Your task to perform on an android device: see sites visited before in the chrome app Image 0: 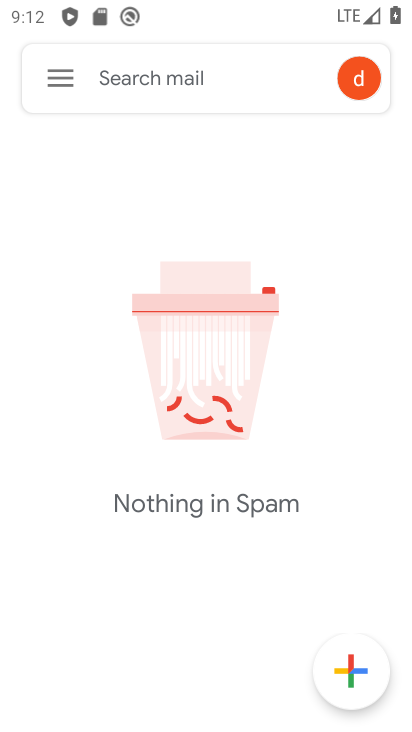
Step 0: press home button
Your task to perform on an android device: see sites visited before in the chrome app Image 1: 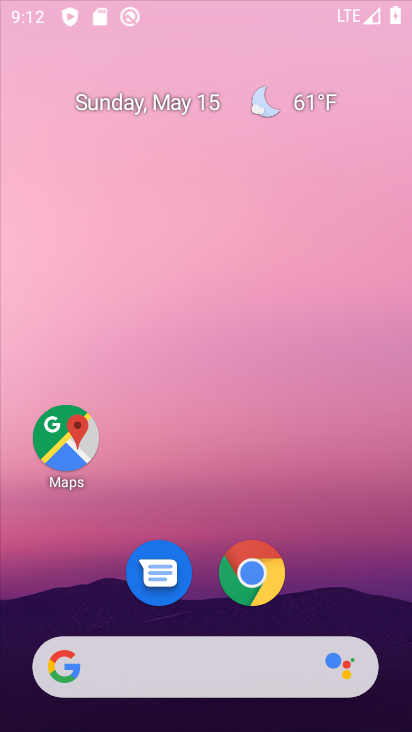
Step 1: drag from (37, 521) to (183, 151)
Your task to perform on an android device: see sites visited before in the chrome app Image 2: 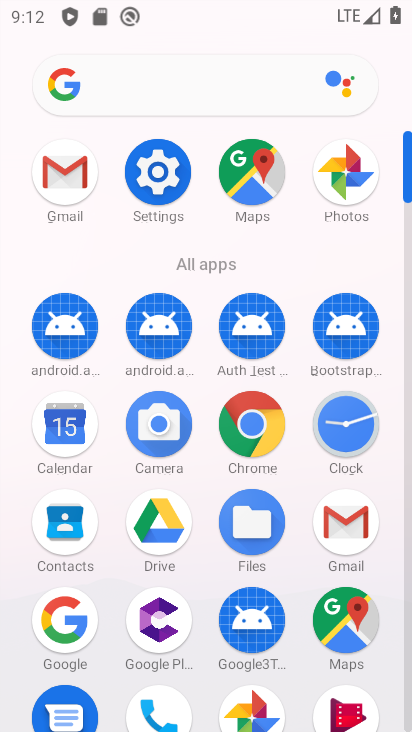
Step 2: click (251, 423)
Your task to perform on an android device: see sites visited before in the chrome app Image 3: 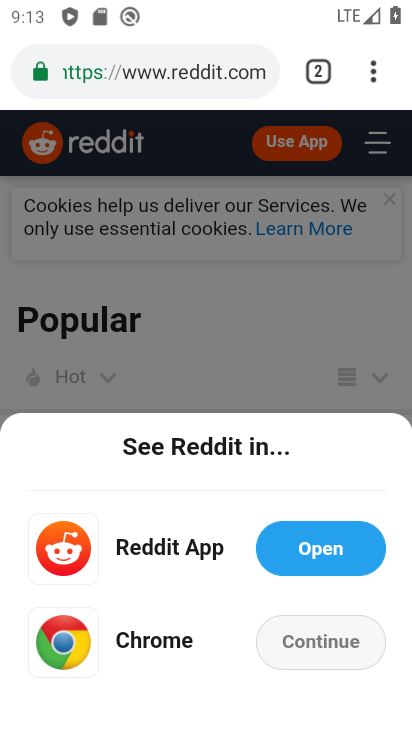
Step 3: press home button
Your task to perform on an android device: see sites visited before in the chrome app Image 4: 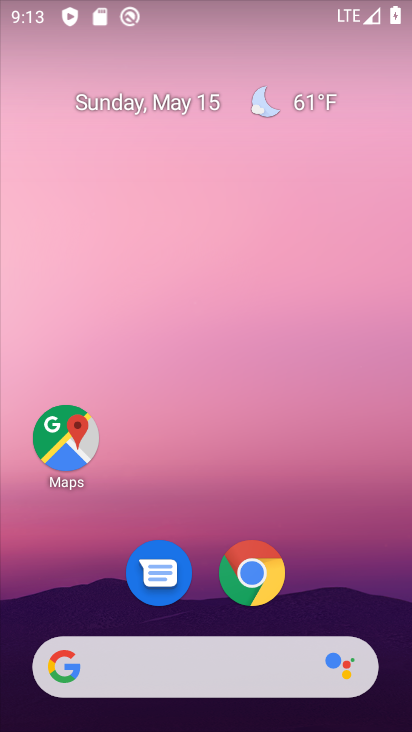
Step 4: click (260, 579)
Your task to perform on an android device: see sites visited before in the chrome app Image 5: 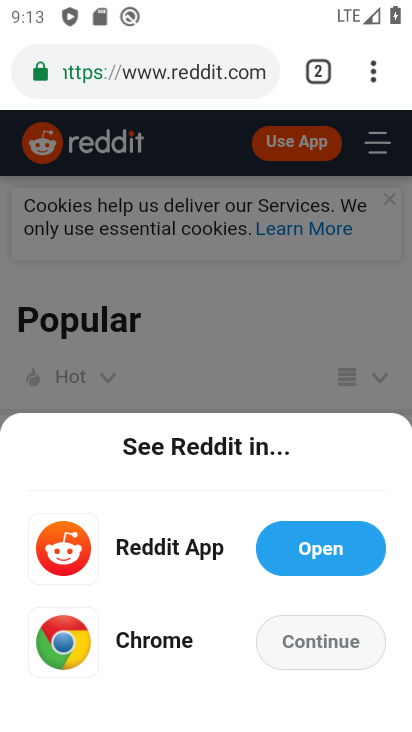
Step 5: press back button
Your task to perform on an android device: see sites visited before in the chrome app Image 6: 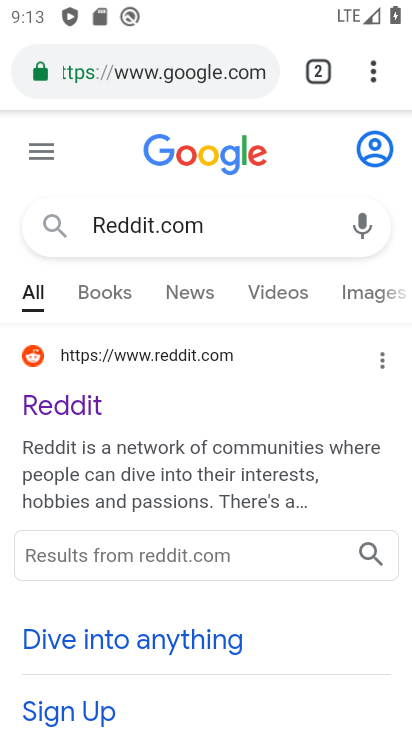
Step 6: click (334, 63)
Your task to perform on an android device: see sites visited before in the chrome app Image 7: 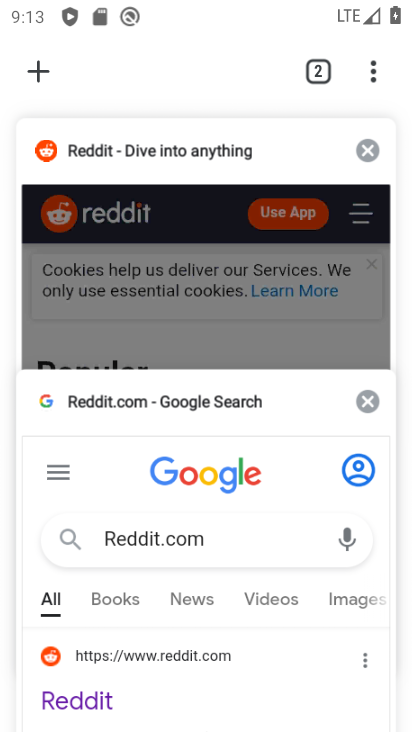
Step 7: click (105, 600)
Your task to perform on an android device: see sites visited before in the chrome app Image 8: 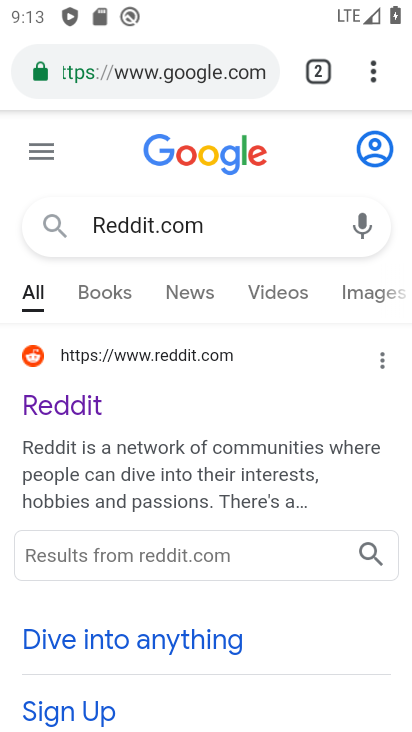
Step 8: task complete